Your task to perform on an android device: Open Google Chrome and open the bookmarks view Image 0: 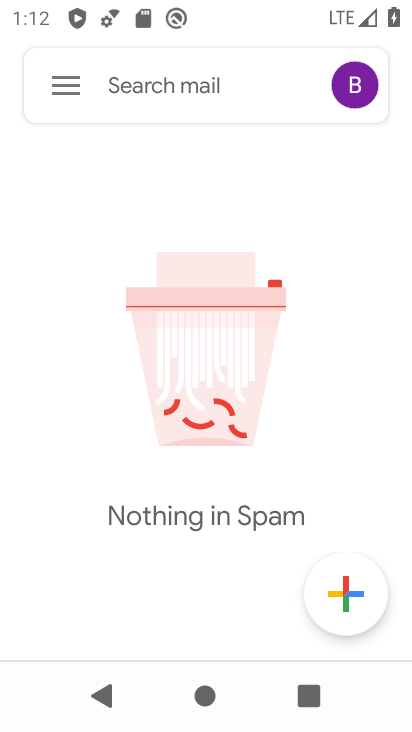
Step 0: press home button
Your task to perform on an android device: Open Google Chrome and open the bookmarks view Image 1: 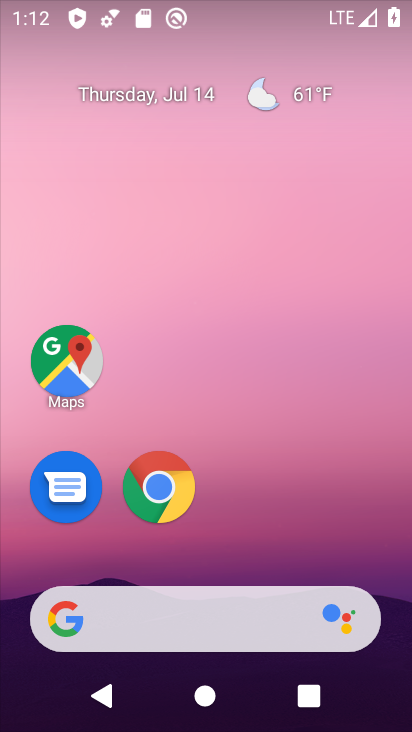
Step 1: drag from (341, 566) to (354, 239)
Your task to perform on an android device: Open Google Chrome and open the bookmarks view Image 2: 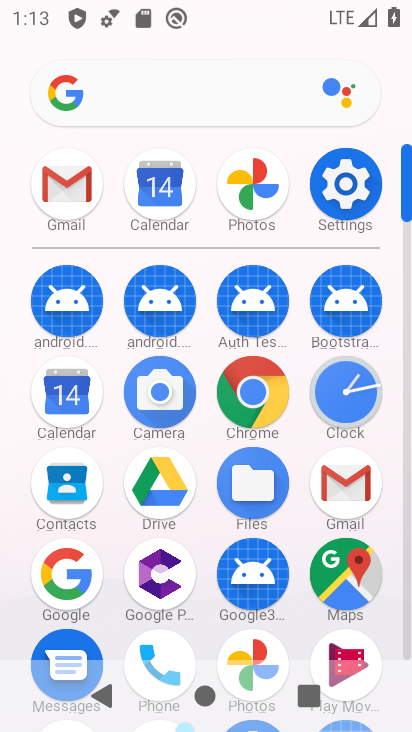
Step 2: click (254, 392)
Your task to perform on an android device: Open Google Chrome and open the bookmarks view Image 3: 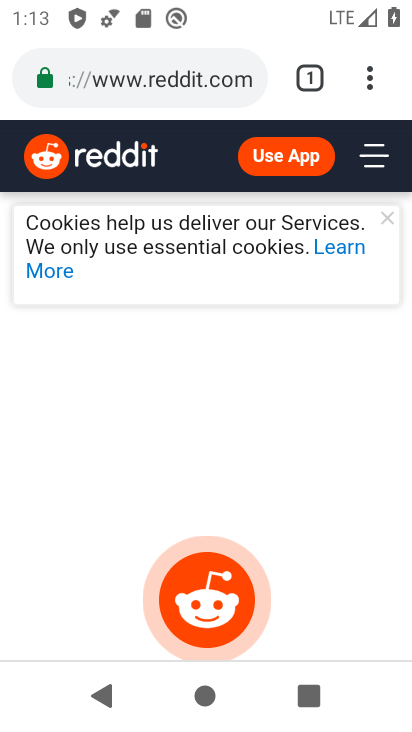
Step 3: click (370, 82)
Your task to perform on an android device: Open Google Chrome and open the bookmarks view Image 4: 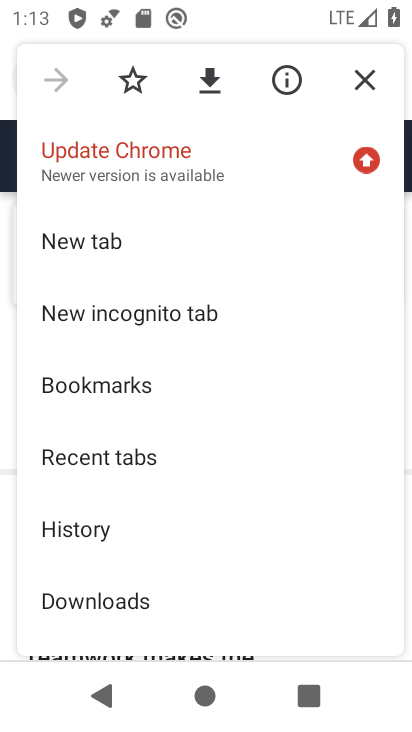
Step 4: drag from (282, 486) to (292, 405)
Your task to perform on an android device: Open Google Chrome and open the bookmarks view Image 5: 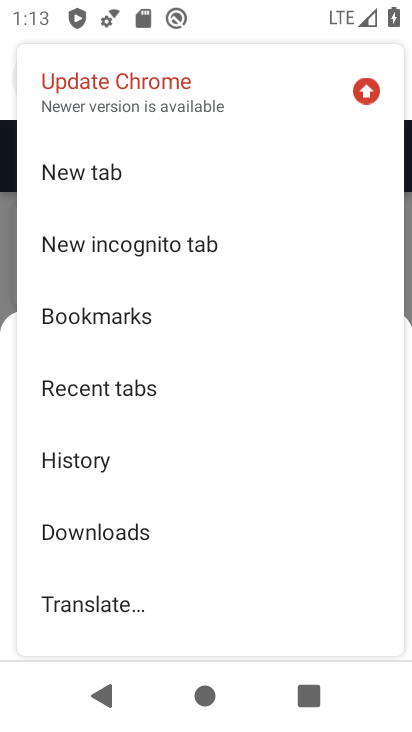
Step 5: drag from (312, 509) to (334, 423)
Your task to perform on an android device: Open Google Chrome and open the bookmarks view Image 6: 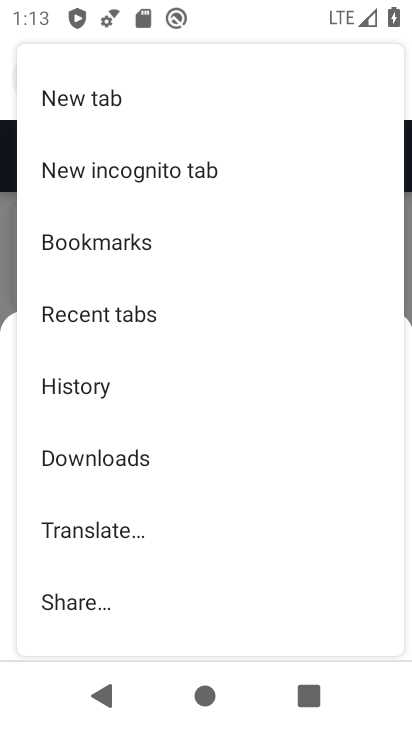
Step 6: drag from (322, 507) to (335, 408)
Your task to perform on an android device: Open Google Chrome and open the bookmarks view Image 7: 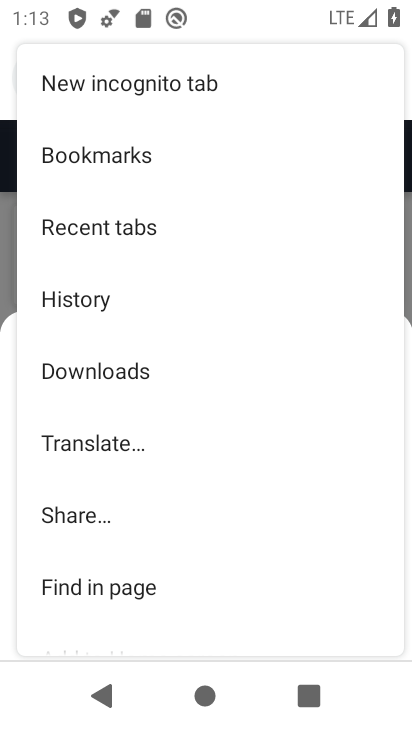
Step 7: click (175, 164)
Your task to perform on an android device: Open Google Chrome and open the bookmarks view Image 8: 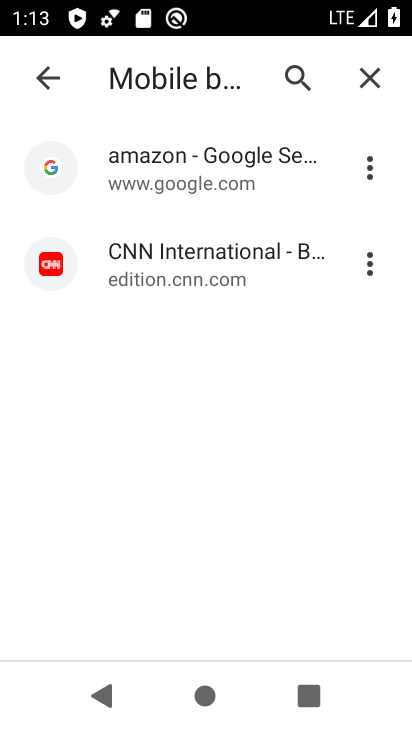
Step 8: task complete